Your task to perform on an android device: change the clock display to analog Image 0: 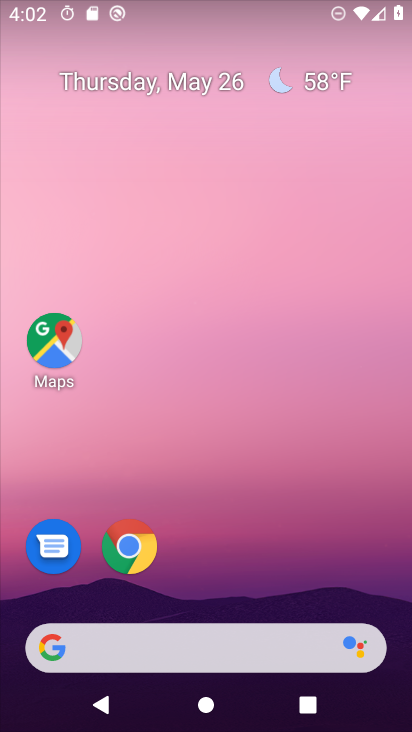
Step 0: drag from (222, 608) to (221, 20)
Your task to perform on an android device: change the clock display to analog Image 1: 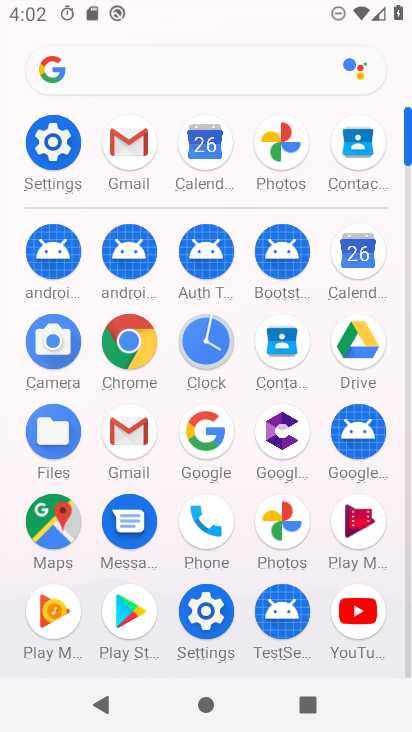
Step 1: click (202, 340)
Your task to perform on an android device: change the clock display to analog Image 2: 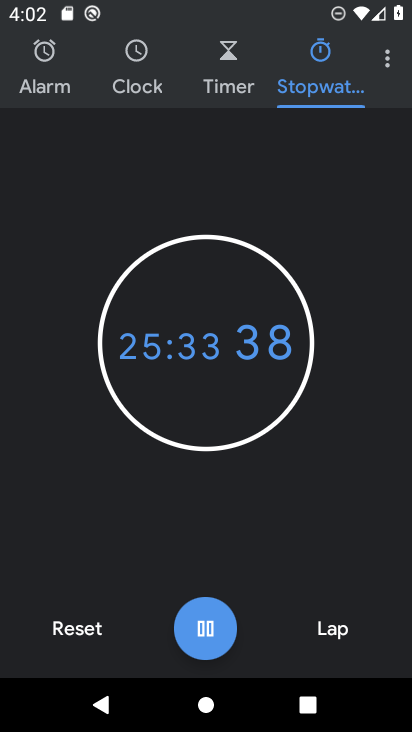
Step 2: click (384, 72)
Your task to perform on an android device: change the clock display to analog Image 3: 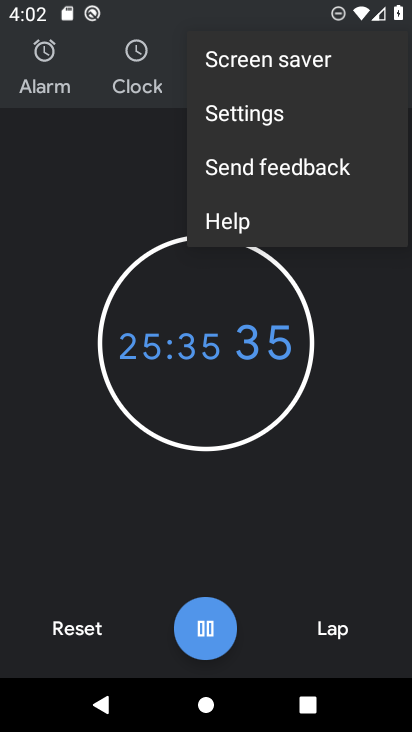
Step 3: click (281, 120)
Your task to perform on an android device: change the clock display to analog Image 4: 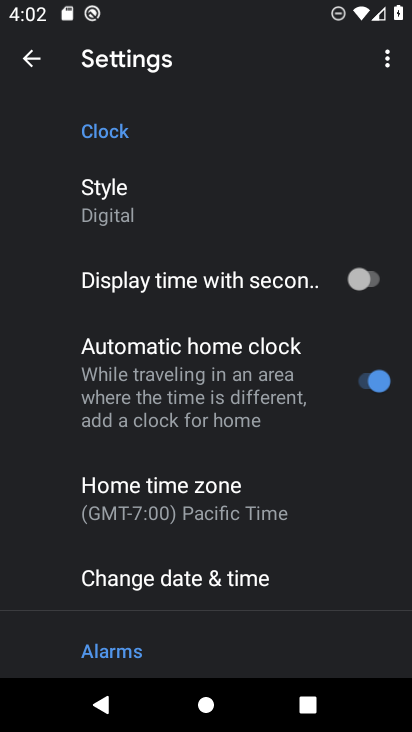
Step 4: click (161, 197)
Your task to perform on an android device: change the clock display to analog Image 5: 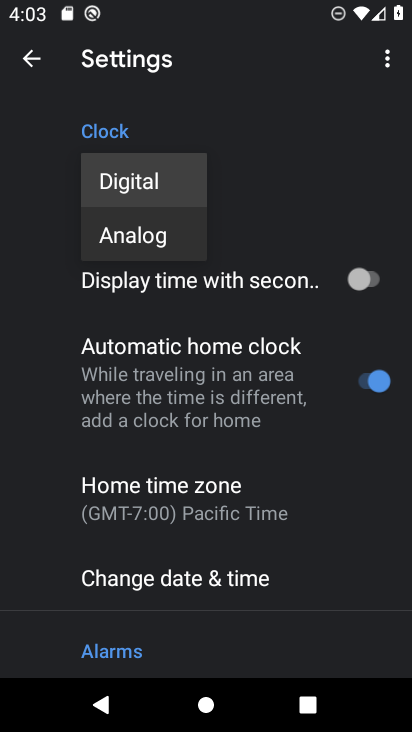
Step 5: click (151, 245)
Your task to perform on an android device: change the clock display to analog Image 6: 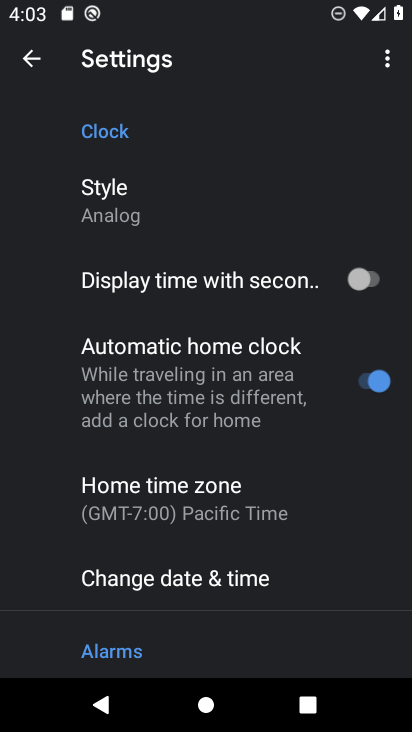
Step 6: task complete